Your task to perform on an android device: move a message to another label in the gmail app Image 0: 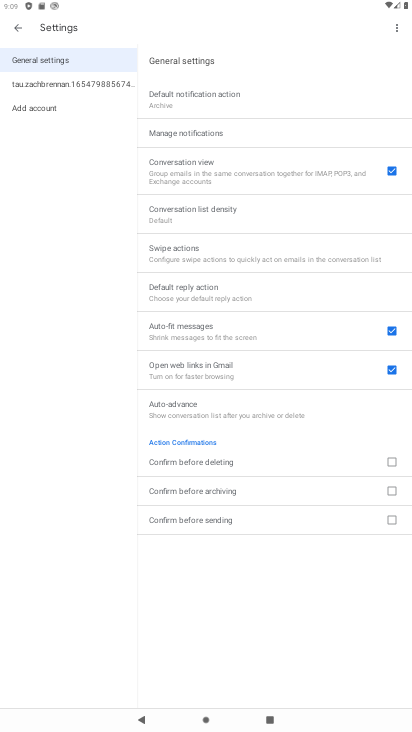
Step 0: click (15, 27)
Your task to perform on an android device: move a message to another label in the gmail app Image 1: 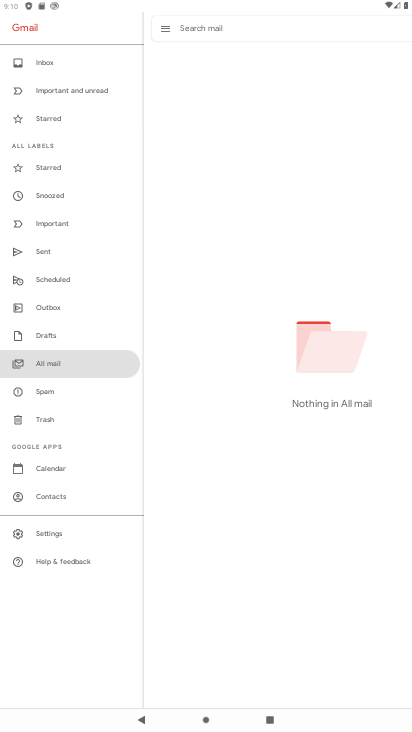
Step 1: click (65, 373)
Your task to perform on an android device: move a message to another label in the gmail app Image 2: 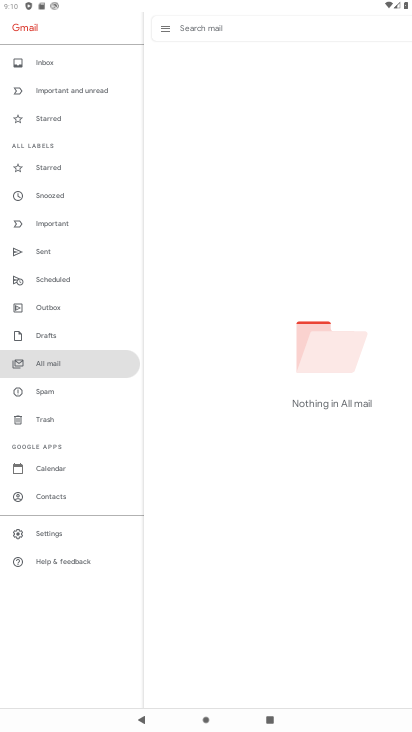
Step 2: task complete